Your task to perform on an android device: Open eBay Image 0: 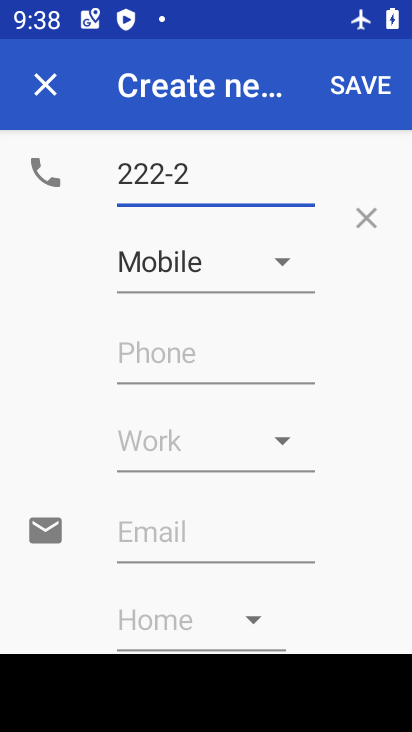
Step 0: press home button
Your task to perform on an android device: Open eBay Image 1: 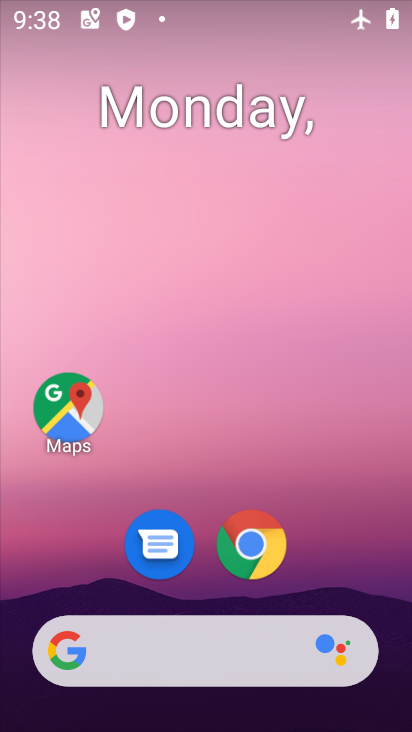
Step 1: click (257, 543)
Your task to perform on an android device: Open eBay Image 2: 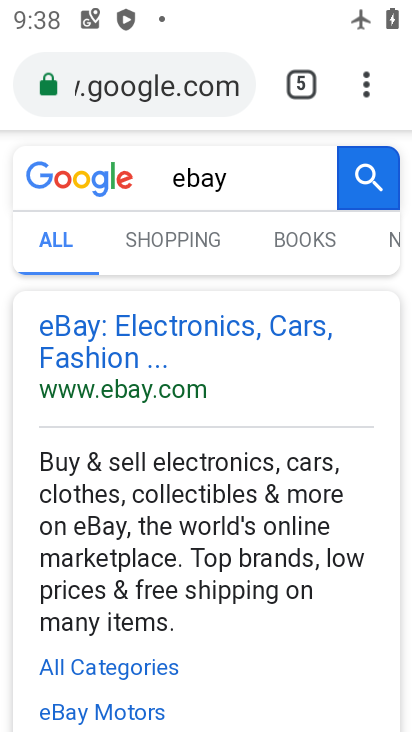
Step 2: task complete